Your task to perform on an android device: Show me popular games on the Play Store Image 0: 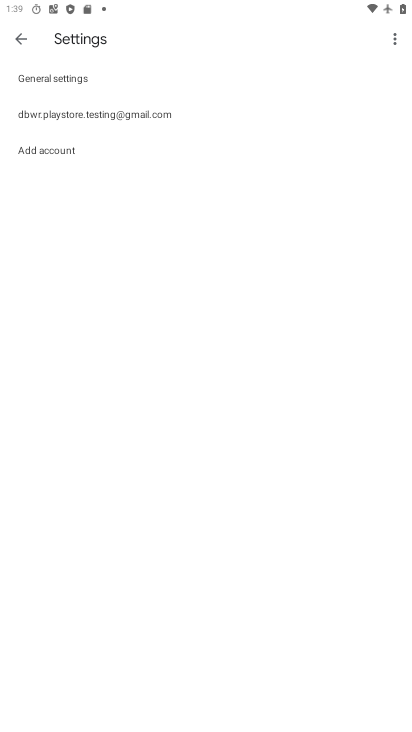
Step 0: press home button
Your task to perform on an android device: Show me popular games on the Play Store Image 1: 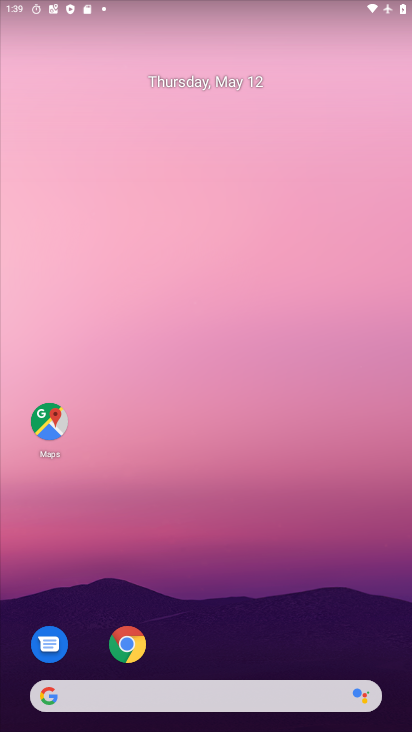
Step 1: drag from (235, 559) to (238, 135)
Your task to perform on an android device: Show me popular games on the Play Store Image 2: 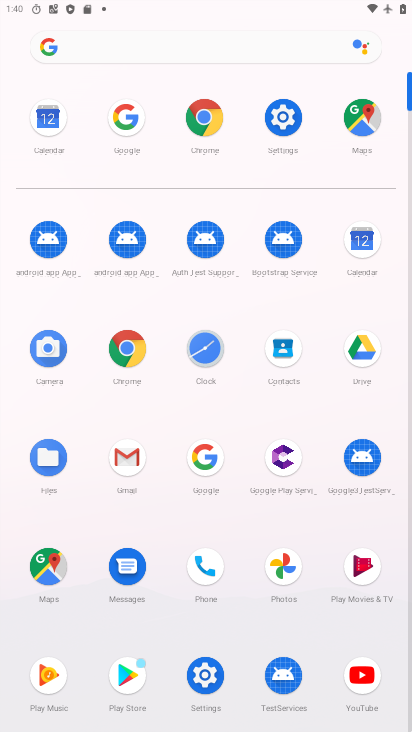
Step 2: click (122, 667)
Your task to perform on an android device: Show me popular games on the Play Store Image 3: 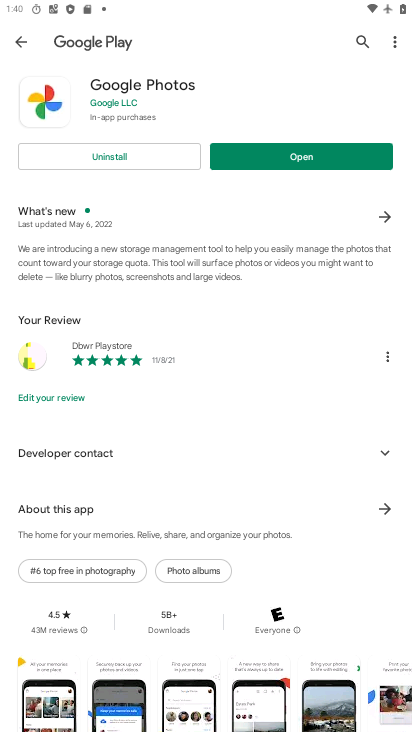
Step 3: click (19, 37)
Your task to perform on an android device: Show me popular games on the Play Store Image 4: 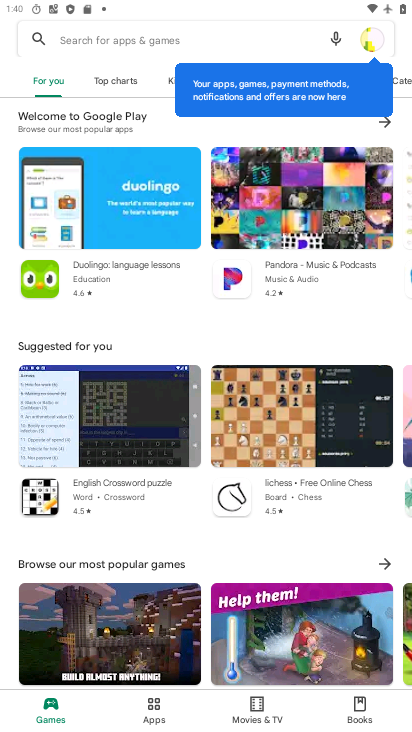
Step 4: click (120, 78)
Your task to perform on an android device: Show me popular games on the Play Store Image 5: 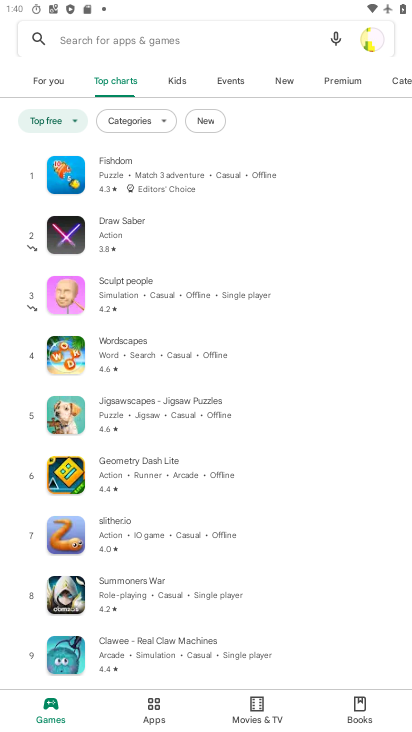
Step 5: task complete